Your task to perform on an android device: turn off improve location accuracy Image 0: 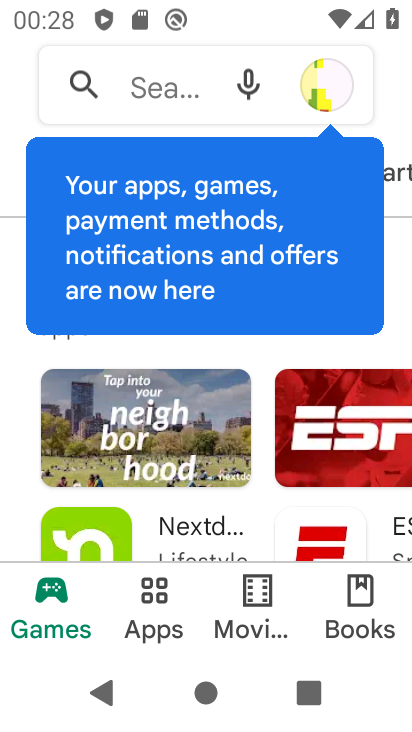
Step 0: press home button
Your task to perform on an android device: turn off improve location accuracy Image 1: 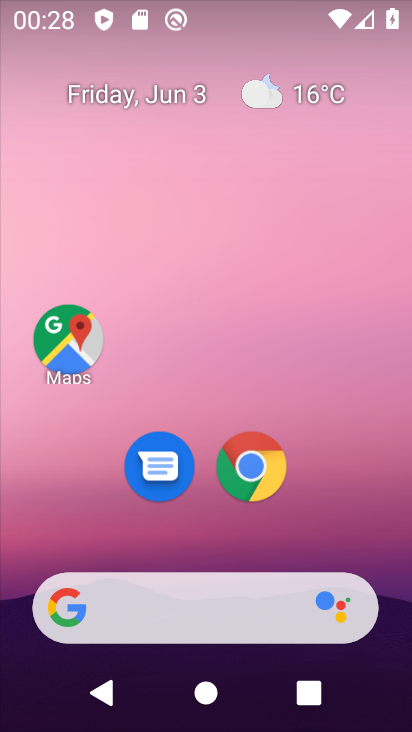
Step 1: drag from (60, 553) to (213, 70)
Your task to perform on an android device: turn off improve location accuracy Image 2: 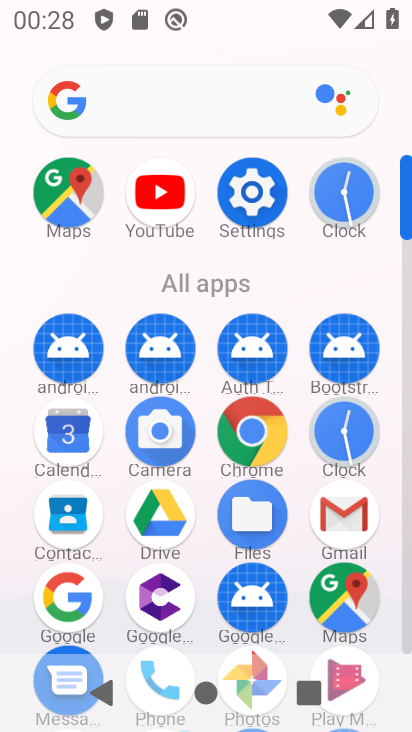
Step 2: drag from (199, 578) to (252, 379)
Your task to perform on an android device: turn off improve location accuracy Image 3: 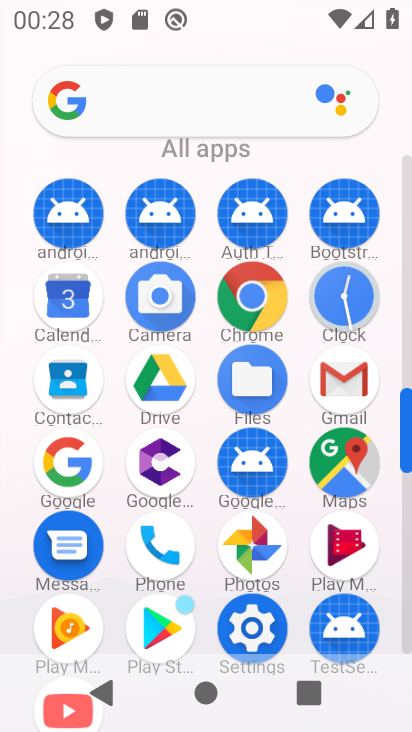
Step 3: click (238, 627)
Your task to perform on an android device: turn off improve location accuracy Image 4: 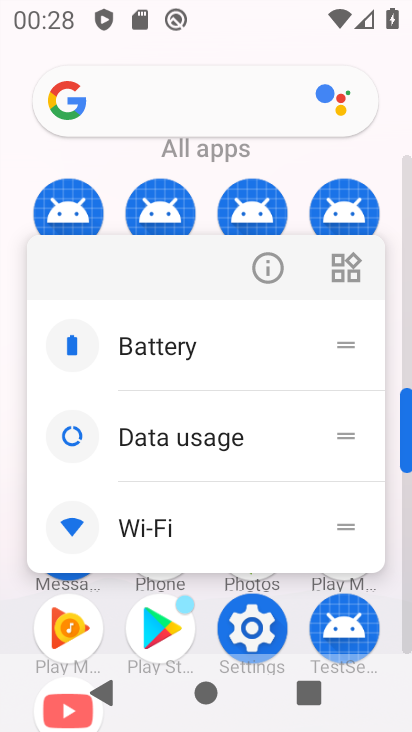
Step 4: click (261, 626)
Your task to perform on an android device: turn off improve location accuracy Image 5: 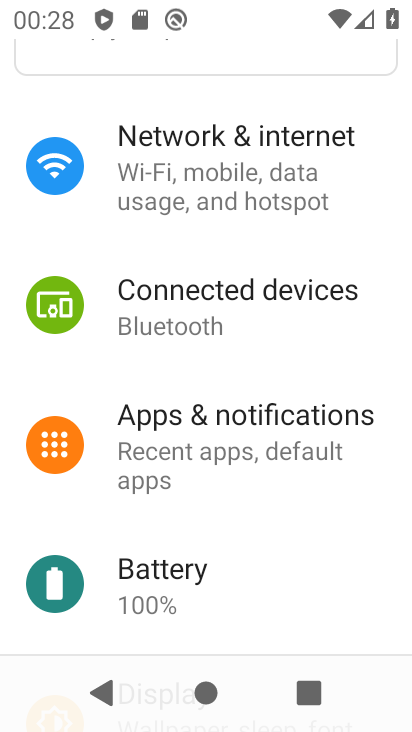
Step 5: drag from (244, 615) to (331, 92)
Your task to perform on an android device: turn off improve location accuracy Image 6: 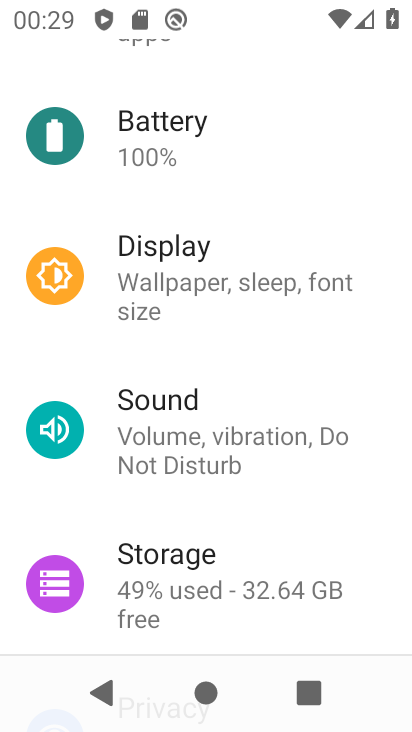
Step 6: drag from (256, 187) to (309, 59)
Your task to perform on an android device: turn off improve location accuracy Image 7: 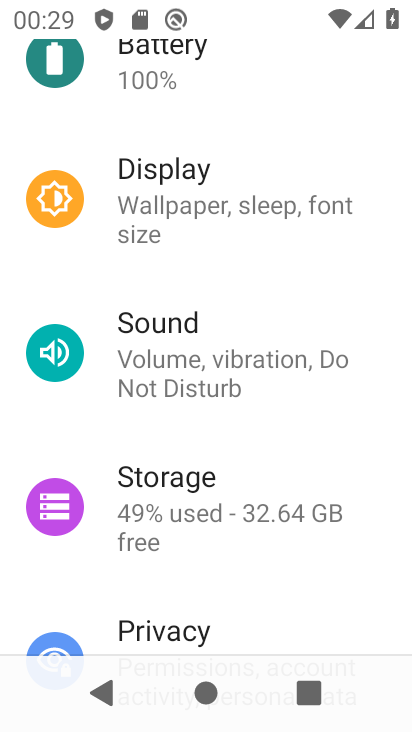
Step 7: drag from (154, 562) to (307, 174)
Your task to perform on an android device: turn off improve location accuracy Image 8: 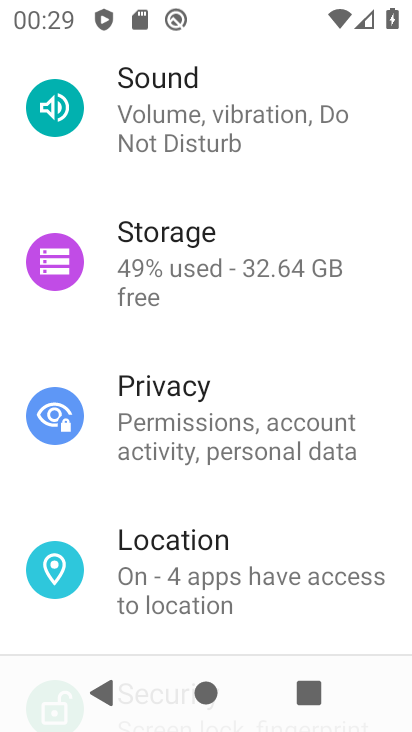
Step 8: click (199, 586)
Your task to perform on an android device: turn off improve location accuracy Image 9: 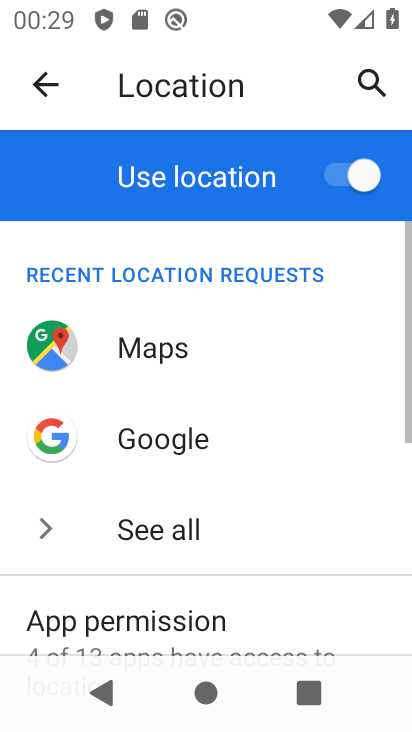
Step 9: drag from (200, 616) to (309, 327)
Your task to perform on an android device: turn off improve location accuracy Image 10: 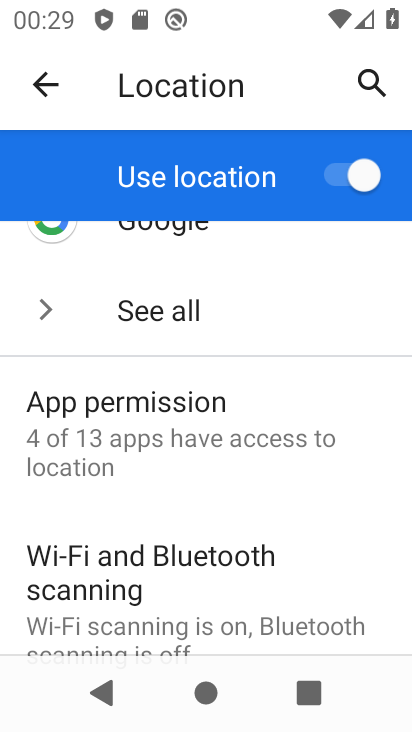
Step 10: drag from (194, 588) to (299, 303)
Your task to perform on an android device: turn off improve location accuracy Image 11: 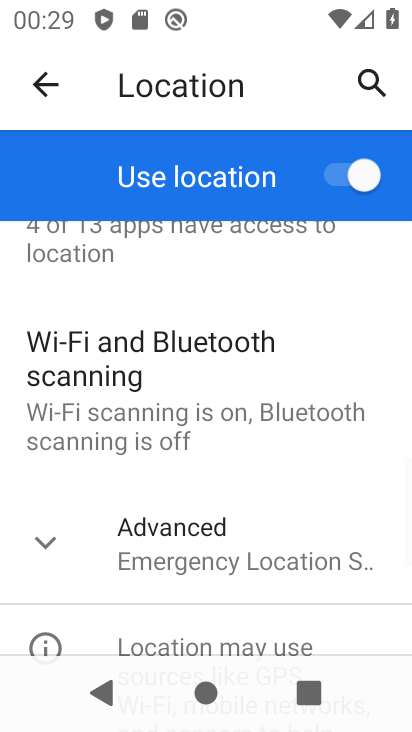
Step 11: click (220, 566)
Your task to perform on an android device: turn off improve location accuracy Image 12: 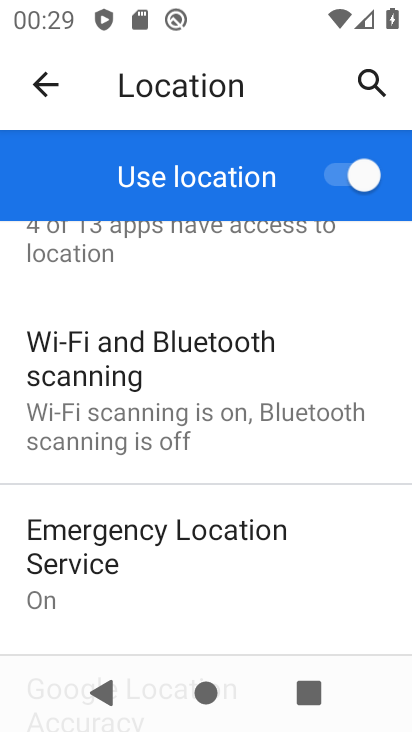
Step 12: drag from (130, 598) to (274, 276)
Your task to perform on an android device: turn off improve location accuracy Image 13: 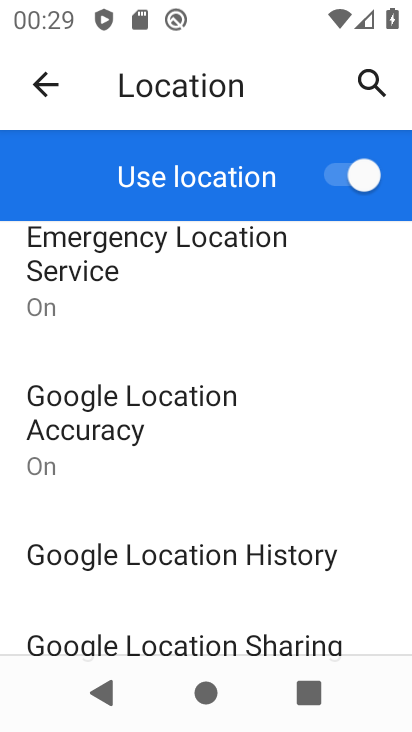
Step 13: click (175, 438)
Your task to perform on an android device: turn off improve location accuracy Image 14: 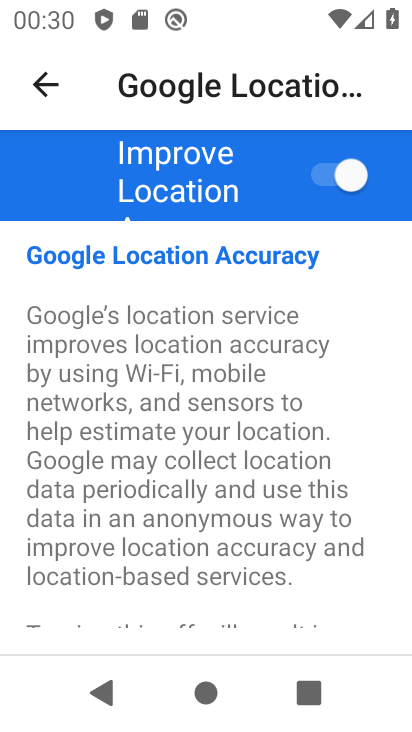
Step 14: drag from (119, 532) to (219, 326)
Your task to perform on an android device: turn off improve location accuracy Image 15: 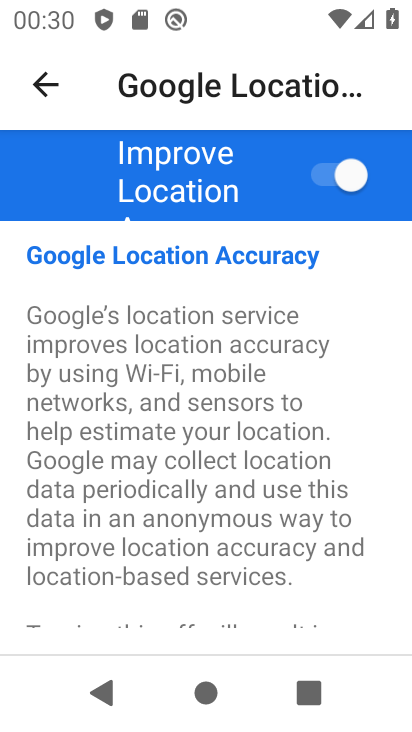
Step 15: click (329, 180)
Your task to perform on an android device: turn off improve location accuracy Image 16: 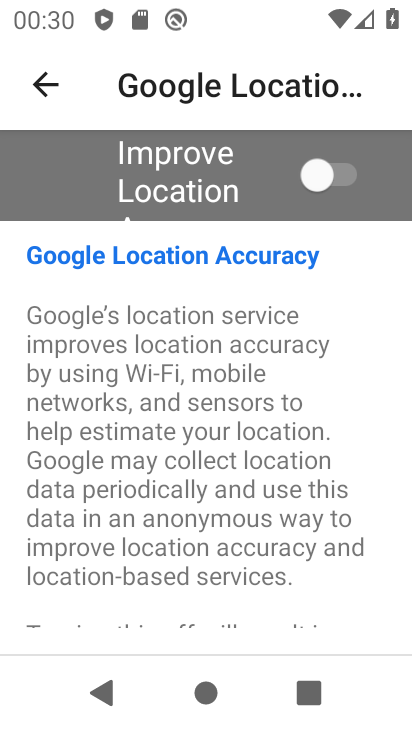
Step 16: task complete